Your task to perform on an android device: turn on javascript in the chrome app Image 0: 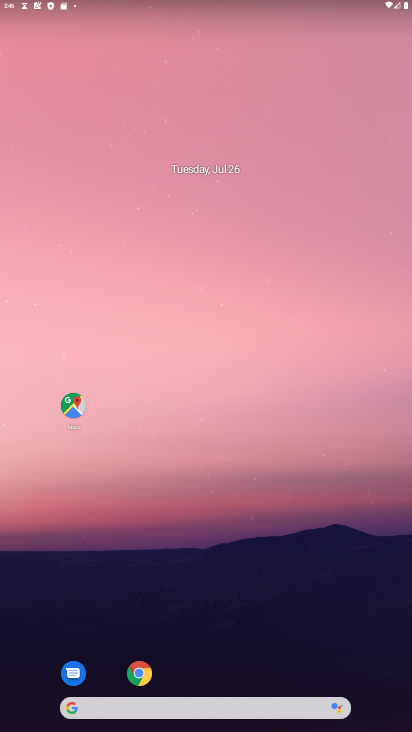
Step 0: click (139, 674)
Your task to perform on an android device: turn on javascript in the chrome app Image 1: 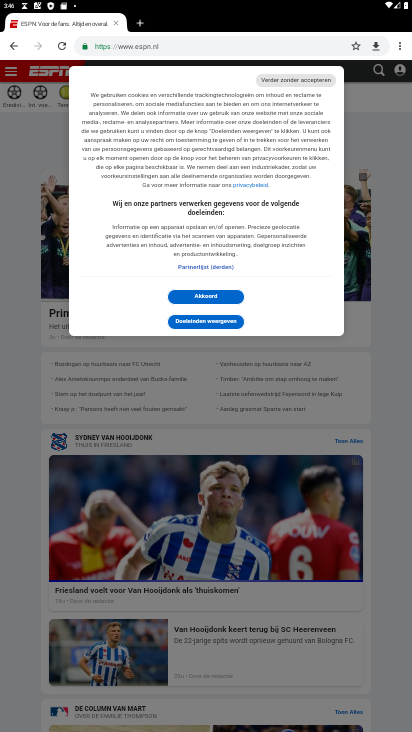
Step 1: click (400, 46)
Your task to perform on an android device: turn on javascript in the chrome app Image 2: 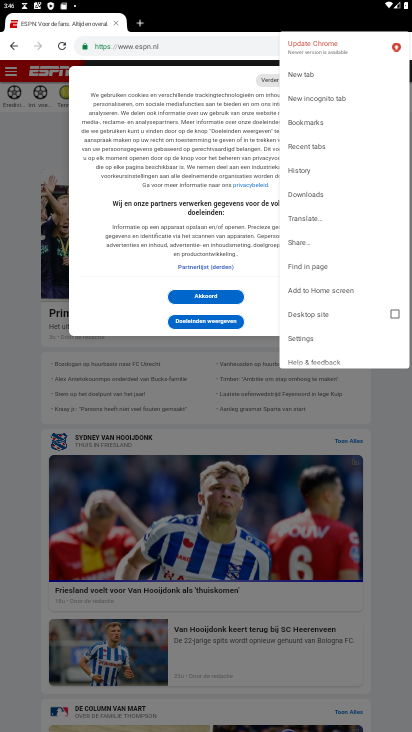
Step 2: click (303, 339)
Your task to perform on an android device: turn on javascript in the chrome app Image 3: 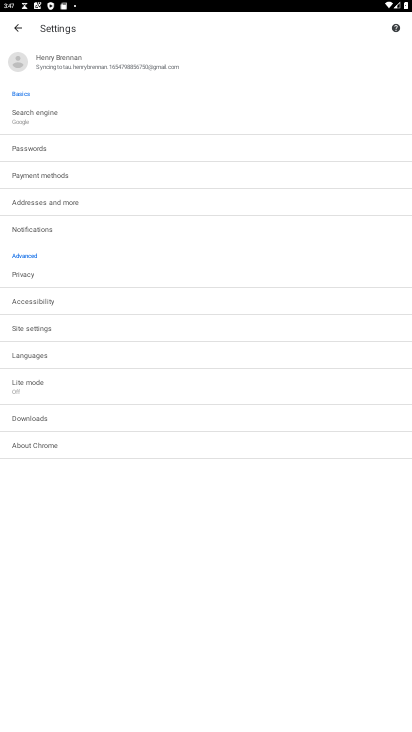
Step 3: click (30, 331)
Your task to perform on an android device: turn on javascript in the chrome app Image 4: 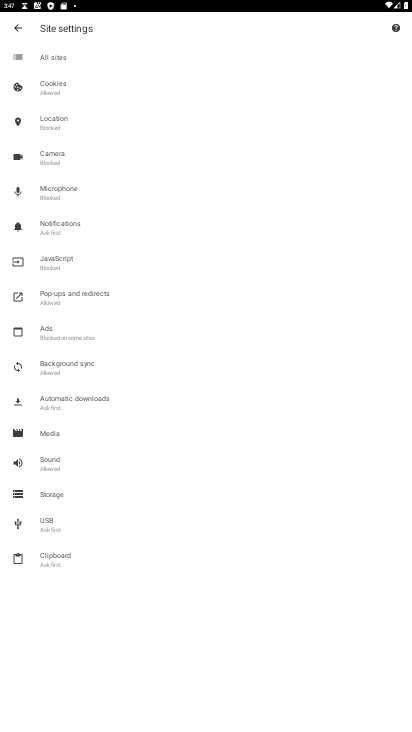
Step 4: click (59, 266)
Your task to perform on an android device: turn on javascript in the chrome app Image 5: 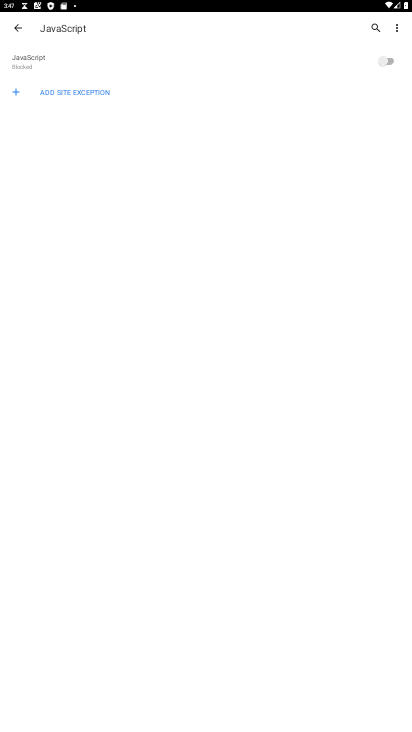
Step 5: click (385, 59)
Your task to perform on an android device: turn on javascript in the chrome app Image 6: 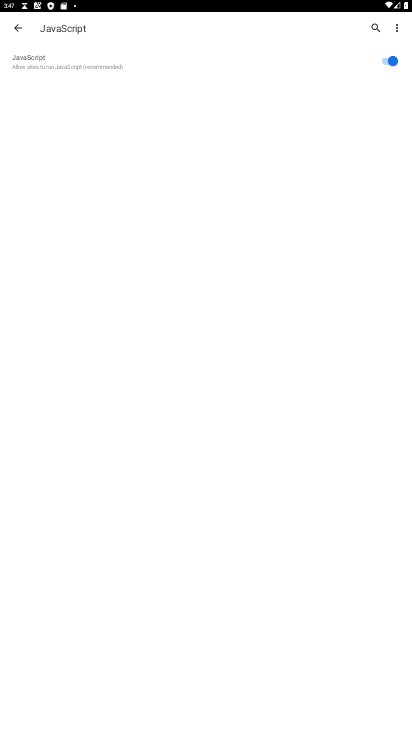
Step 6: task complete